Your task to perform on an android device: open a bookmark in the chrome app Image 0: 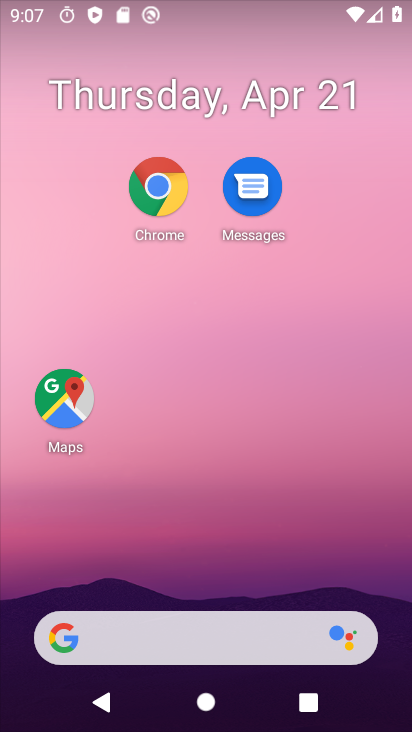
Step 0: click (161, 193)
Your task to perform on an android device: open a bookmark in the chrome app Image 1: 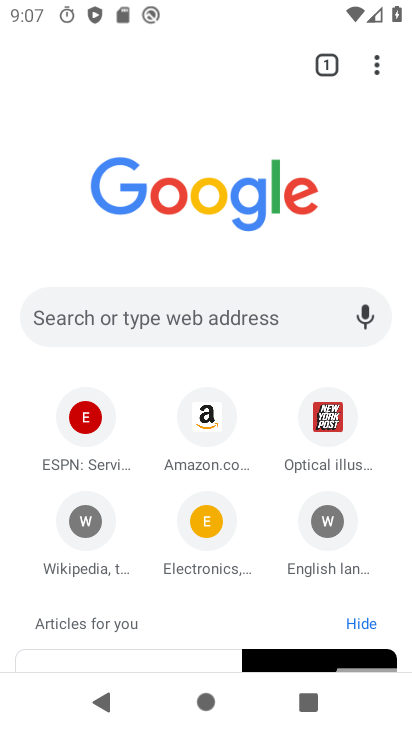
Step 1: click (376, 74)
Your task to perform on an android device: open a bookmark in the chrome app Image 2: 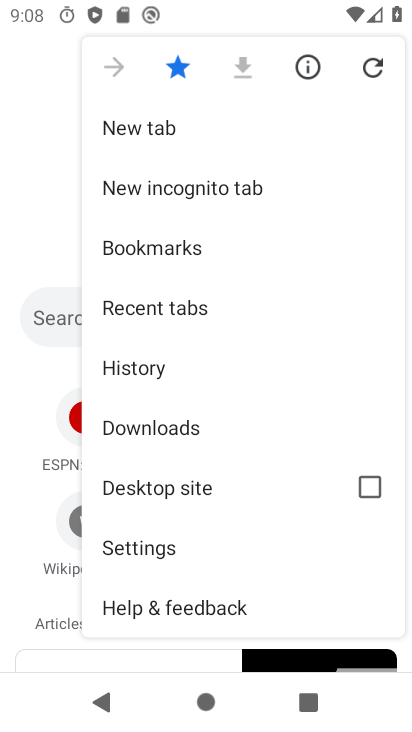
Step 2: click (185, 252)
Your task to perform on an android device: open a bookmark in the chrome app Image 3: 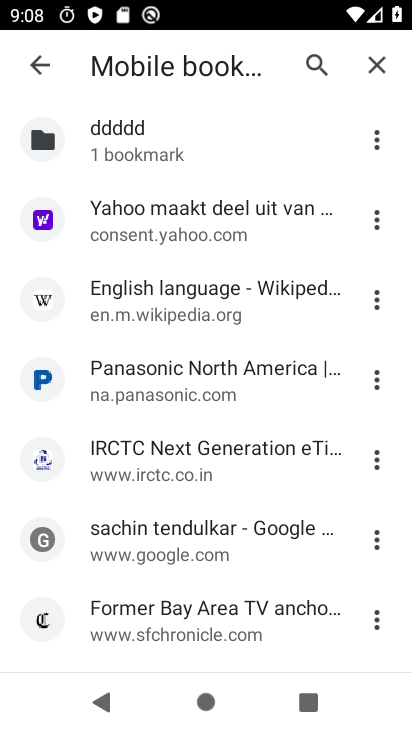
Step 3: click (213, 233)
Your task to perform on an android device: open a bookmark in the chrome app Image 4: 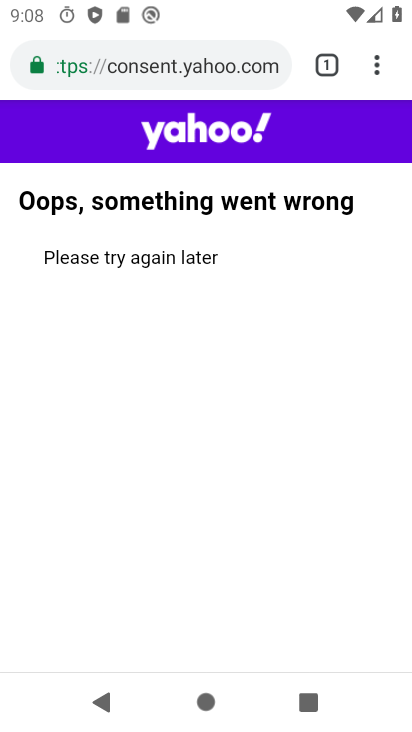
Step 4: task complete